Your task to perform on an android device: Toggle the flashlight Image 0: 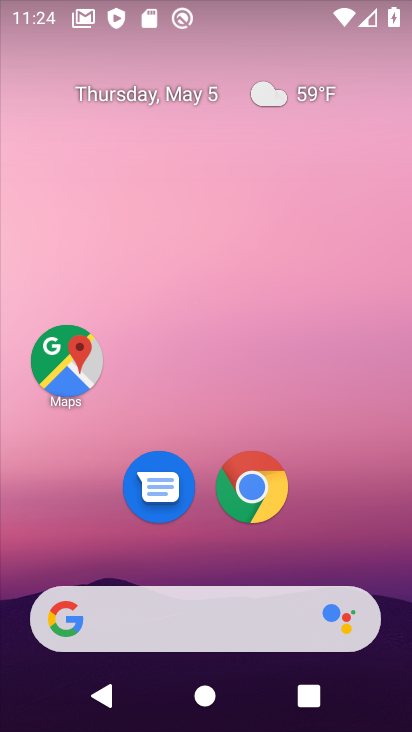
Step 0: drag from (320, 450) to (164, 154)
Your task to perform on an android device: Toggle the flashlight Image 1: 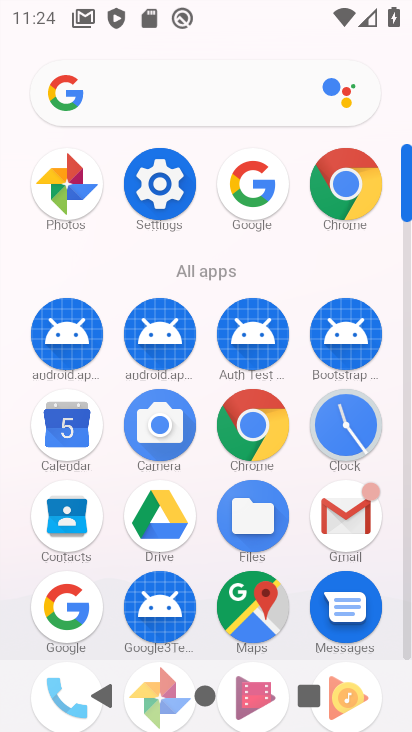
Step 1: click (173, 164)
Your task to perform on an android device: Toggle the flashlight Image 2: 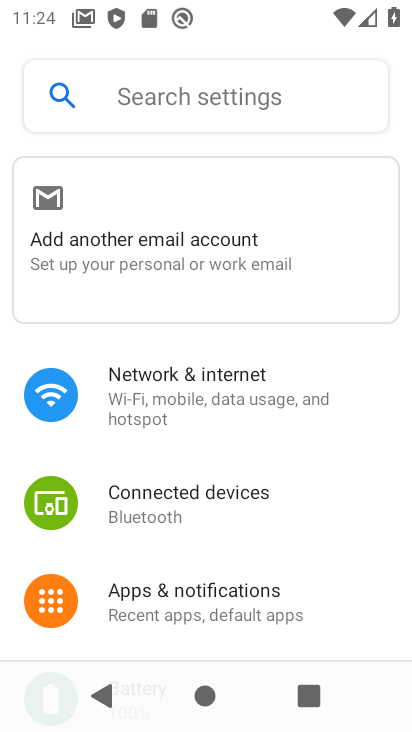
Step 2: click (188, 100)
Your task to perform on an android device: Toggle the flashlight Image 3: 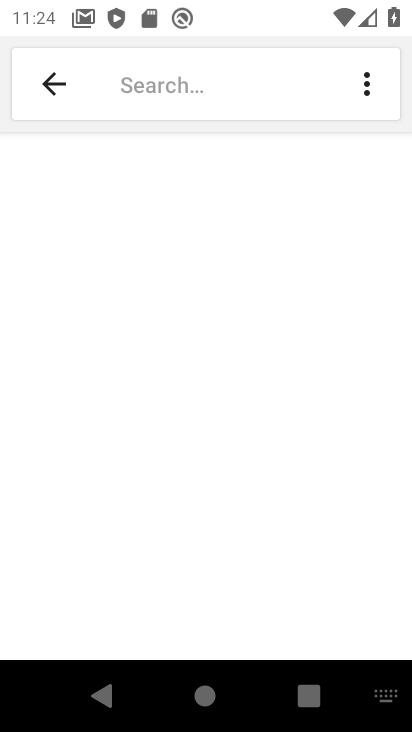
Step 3: type "flashlight"
Your task to perform on an android device: Toggle the flashlight Image 4: 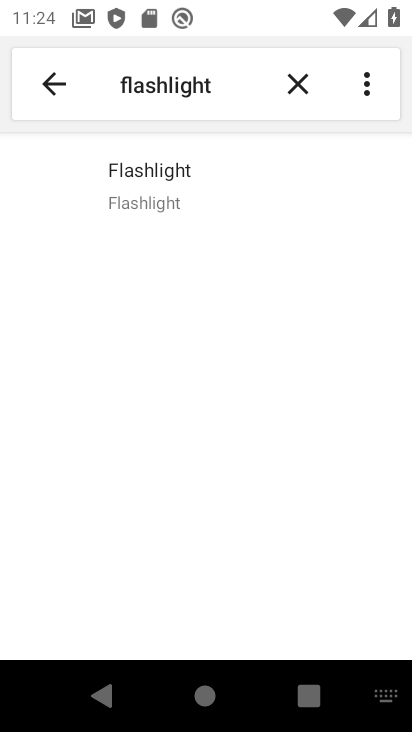
Step 4: click (175, 177)
Your task to perform on an android device: Toggle the flashlight Image 5: 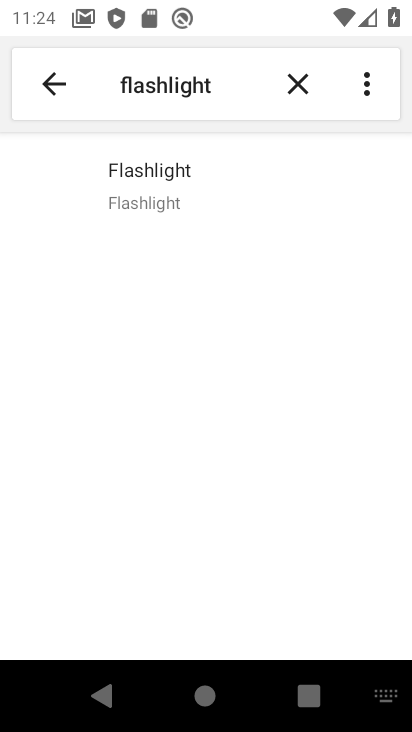
Step 5: click (175, 177)
Your task to perform on an android device: Toggle the flashlight Image 6: 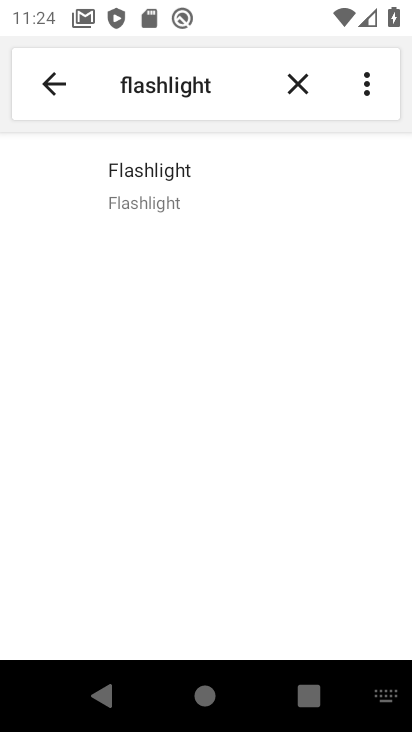
Step 6: task complete